Your task to perform on an android device: set default search engine in the chrome app Image 0: 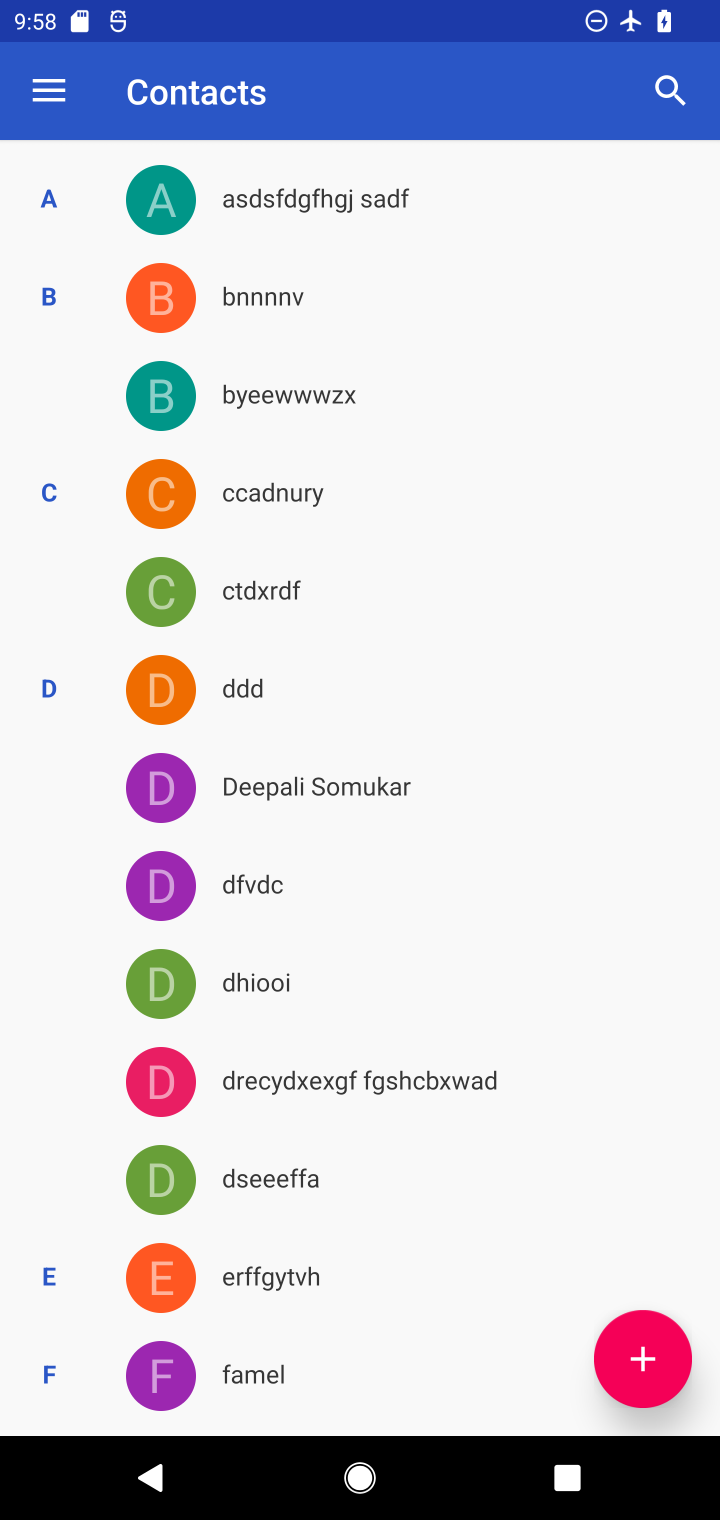
Step 0: press home button
Your task to perform on an android device: set default search engine in the chrome app Image 1: 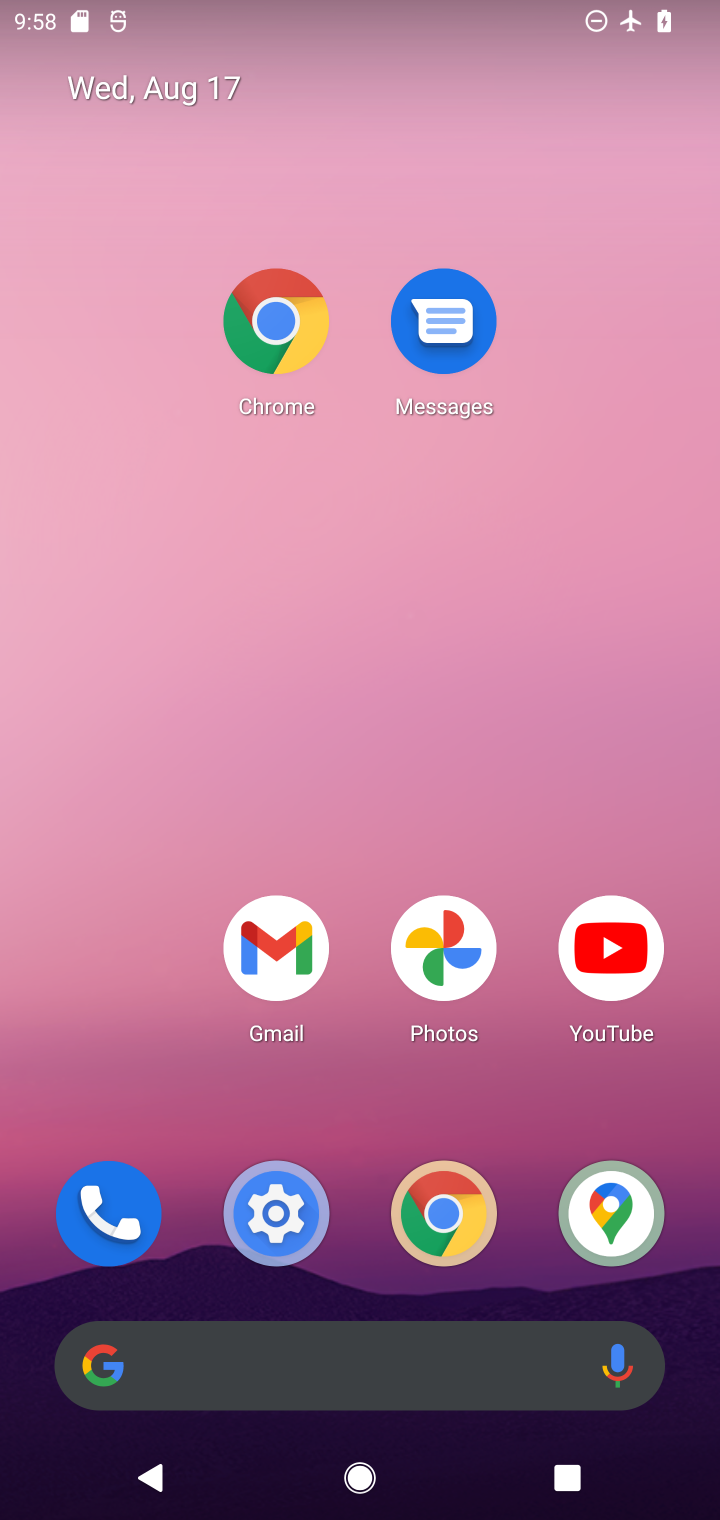
Step 1: click (449, 1222)
Your task to perform on an android device: set default search engine in the chrome app Image 2: 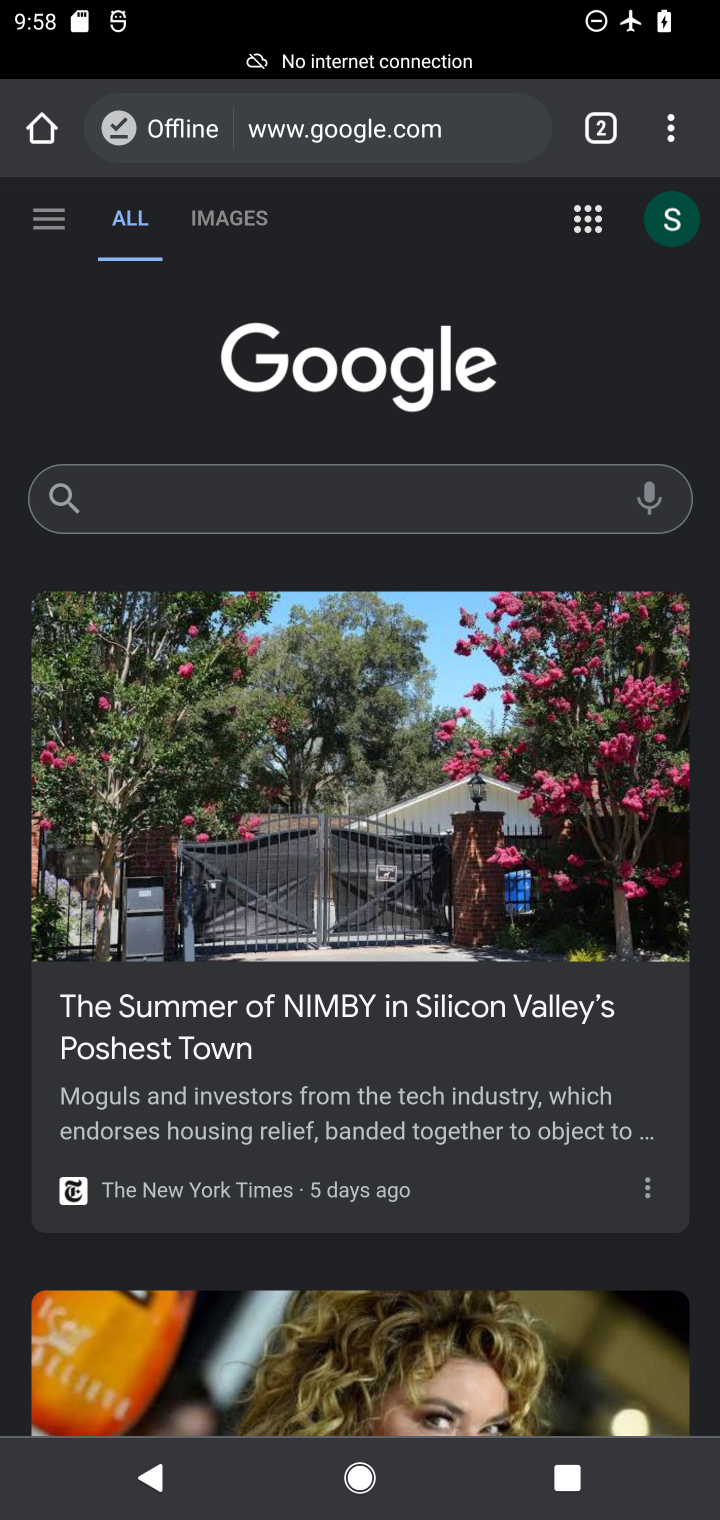
Step 2: click (666, 127)
Your task to perform on an android device: set default search engine in the chrome app Image 3: 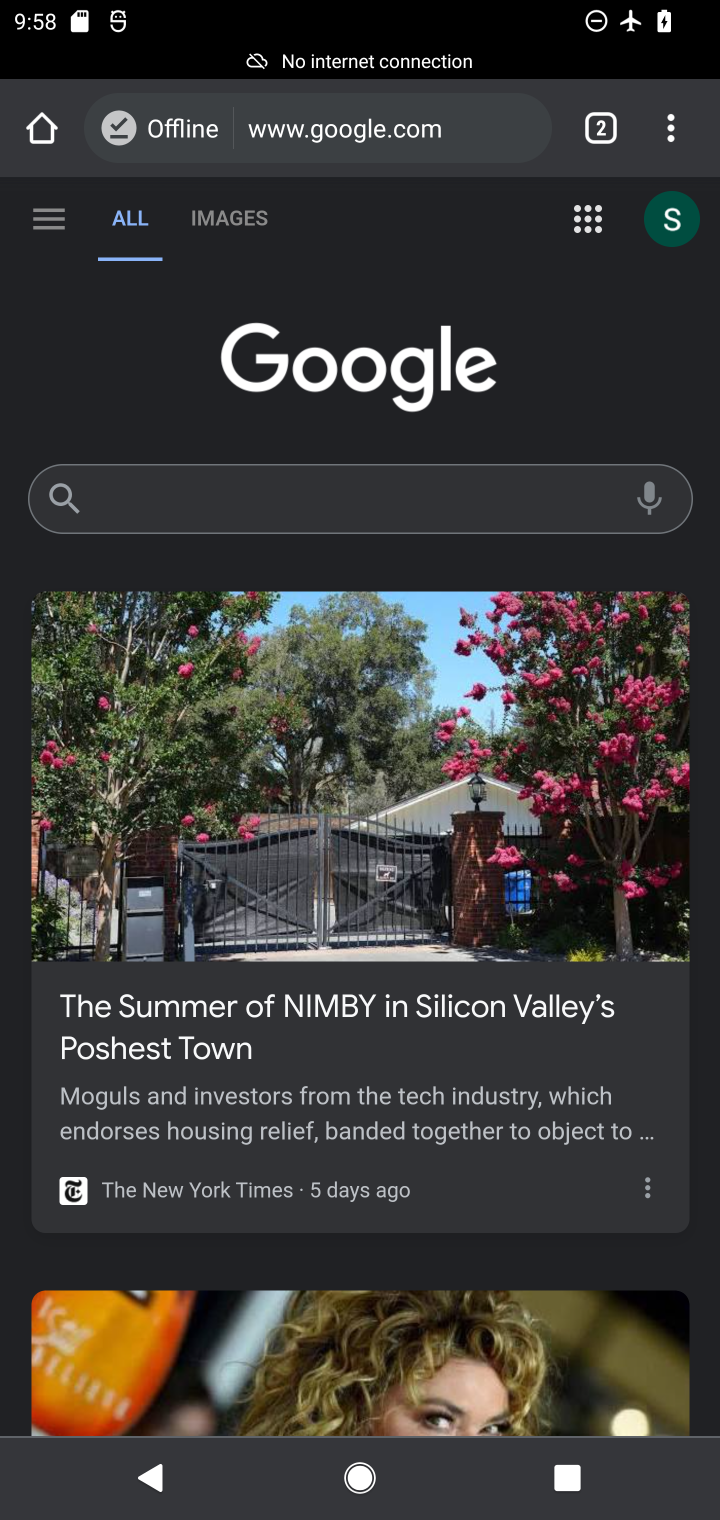
Step 3: click (658, 127)
Your task to perform on an android device: set default search engine in the chrome app Image 4: 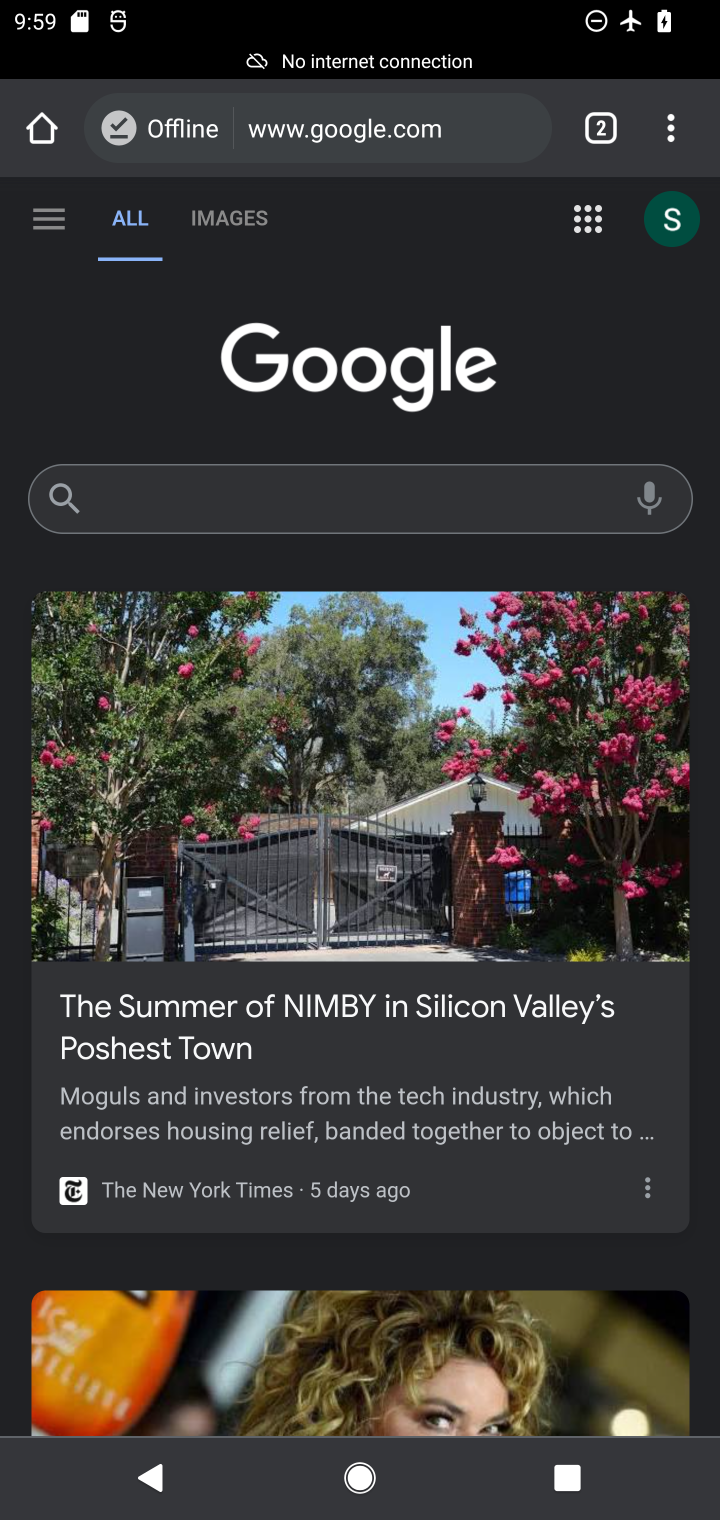
Step 4: click (686, 128)
Your task to perform on an android device: set default search engine in the chrome app Image 5: 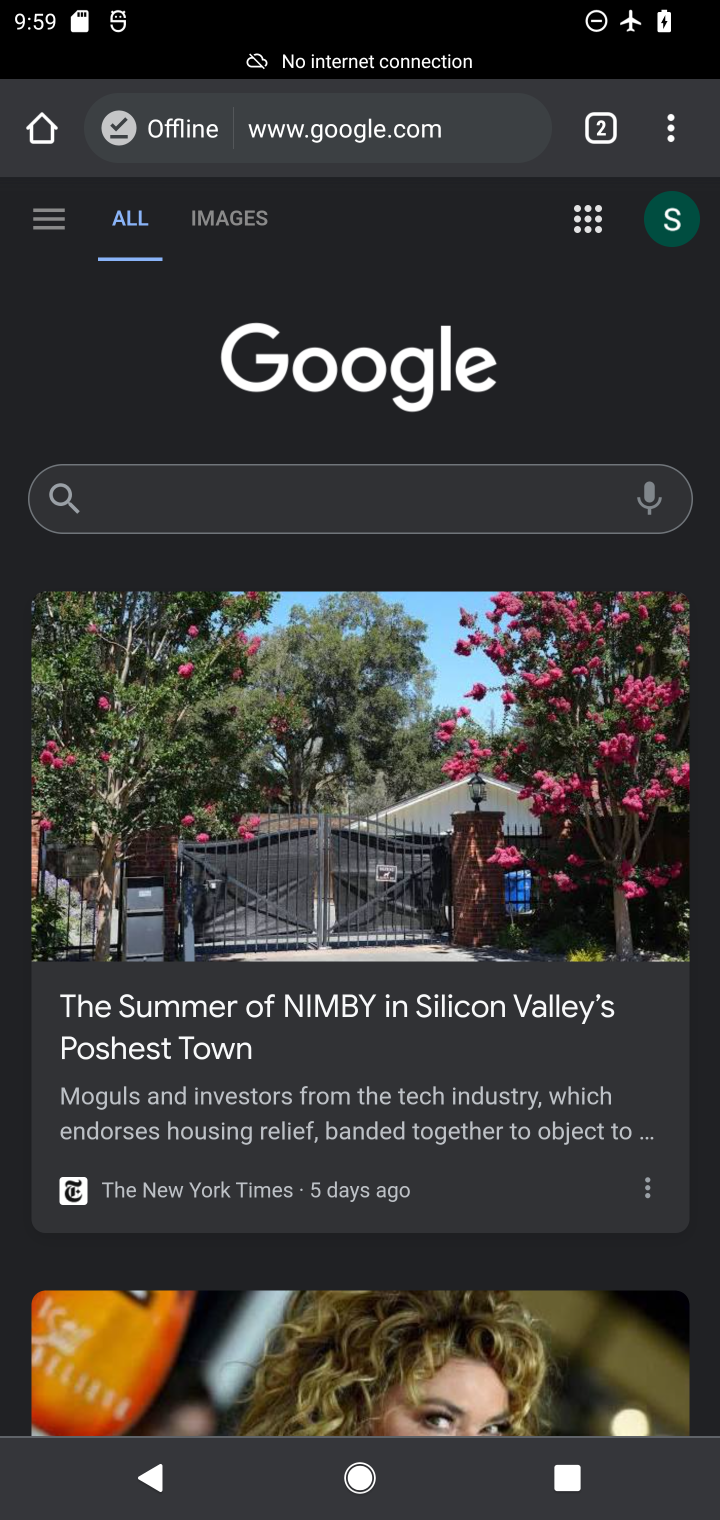
Step 5: click (651, 118)
Your task to perform on an android device: set default search engine in the chrome app Image 6: 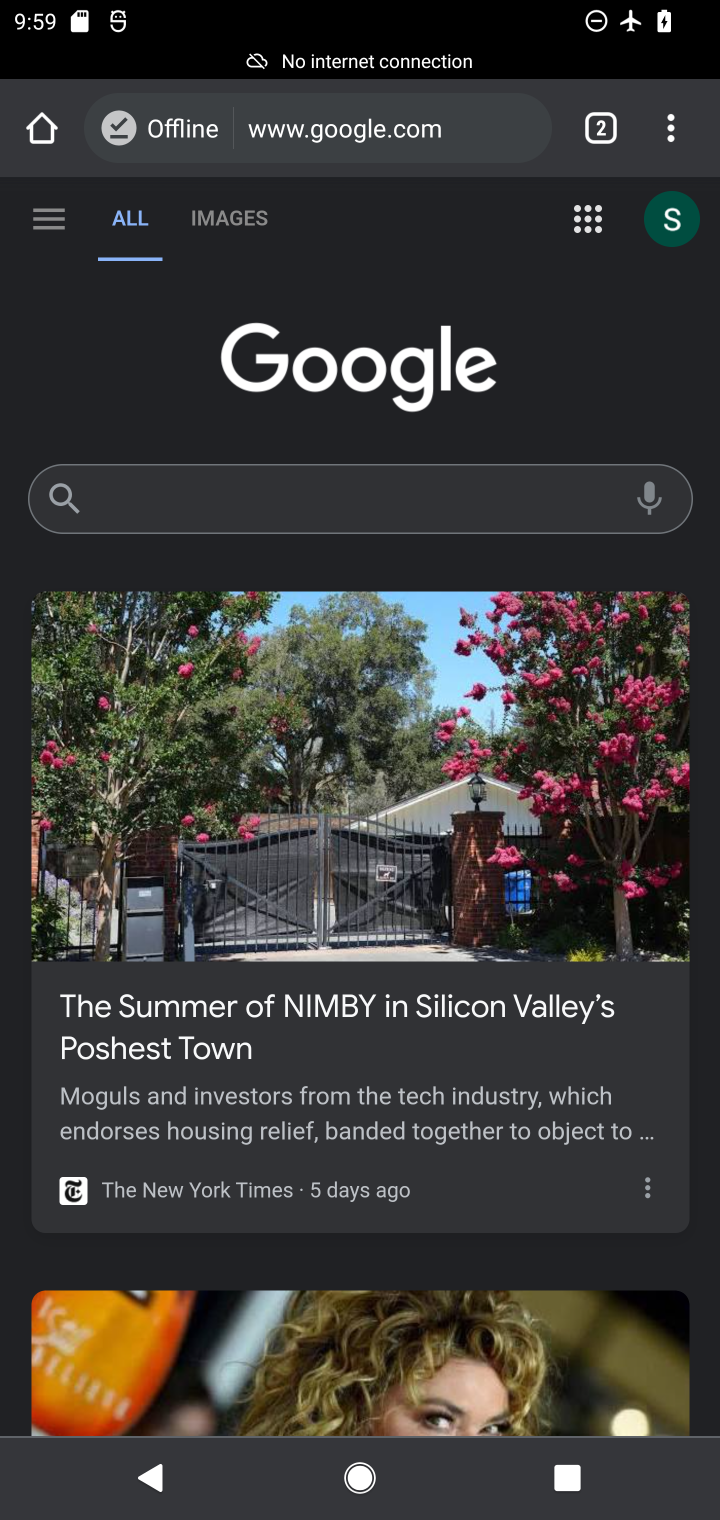
Step 6: task complete